Your task to perform on an android device: open a bookmark in the chrome app Image 0: 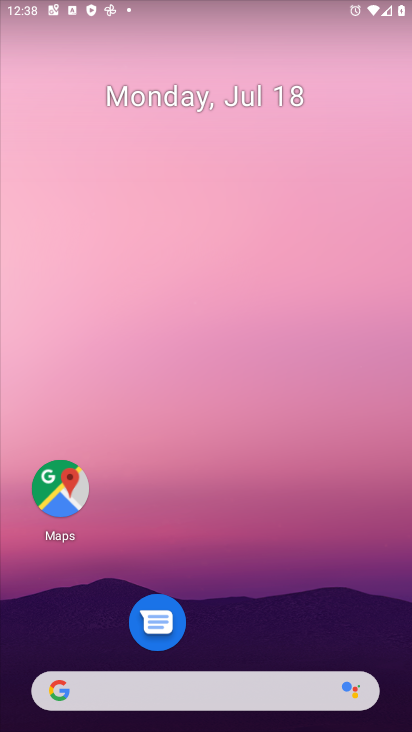
Step 0: drag from (102, 668) to (99, 87)
Your task to perform on an android device: open a bookmark in the chrome app Image 1: 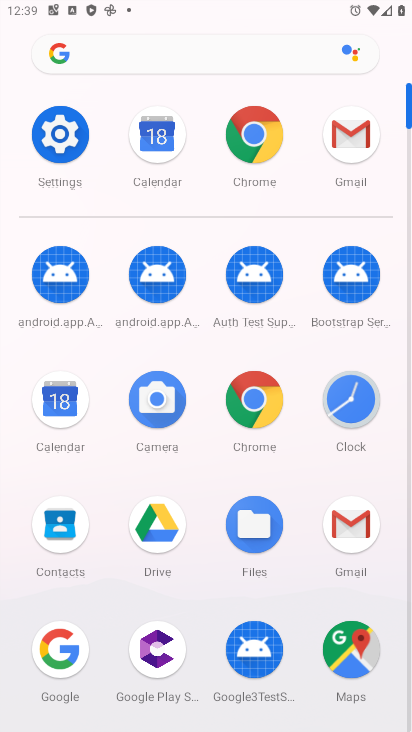
Step 1: click (245, 129)
Your task to perform on an android device: open a bookmark in the chrome app Image 2: 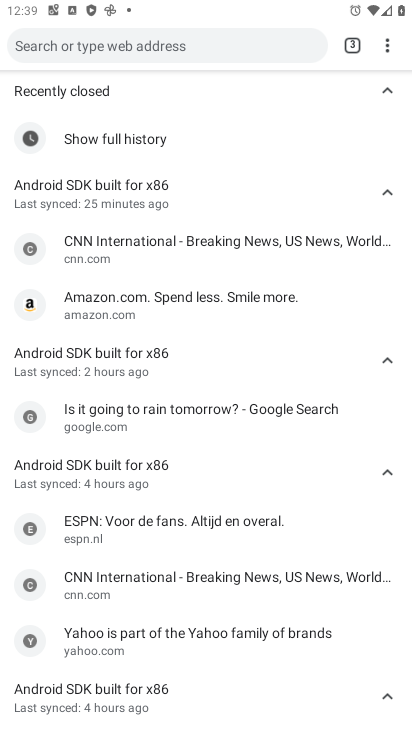
Step 2: click (382, 43)
Your task to perform on an android device: open a bookmark in the chrome app Image 3: 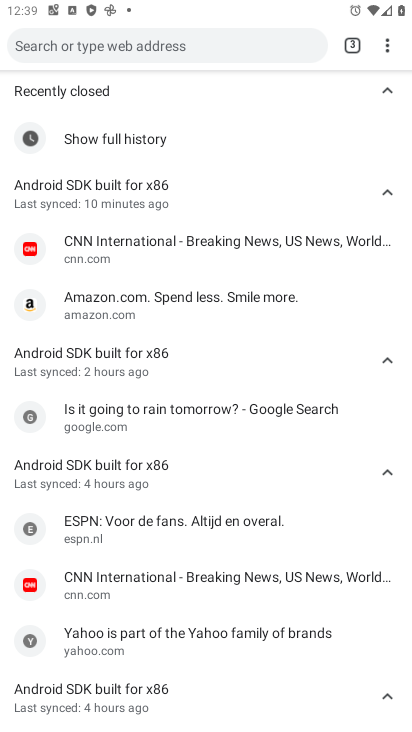
Step 3: click (394, 40)
Your task to perform on an android device: open a bookmark in the chrome app Image 4: 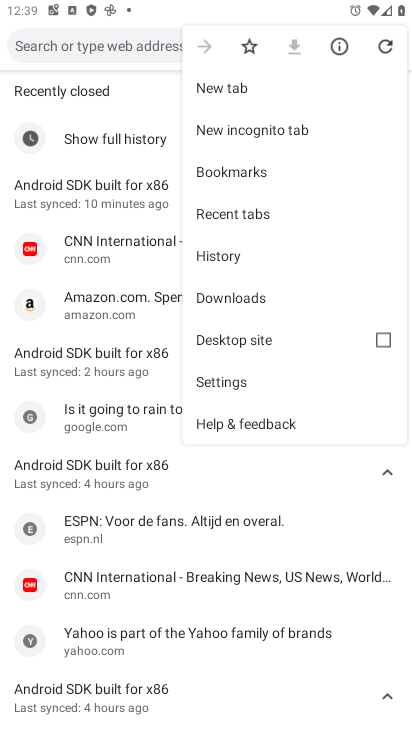
Step 4: click (267, 174)
Your task to perform on an android device: open a bookmark in the chrome app Image 5: 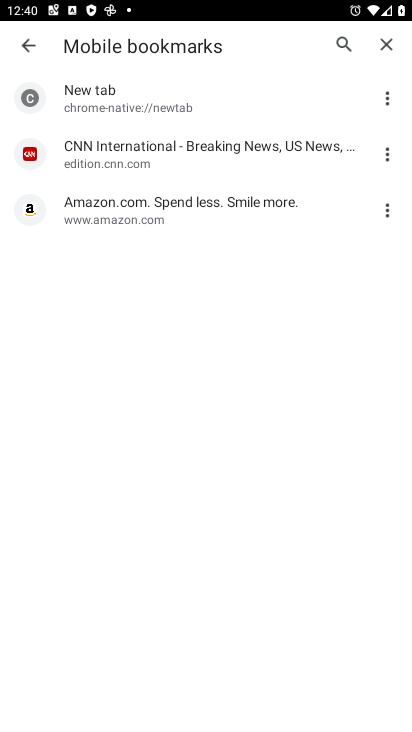
Step 5: click (231, 210)
Your task to perform on an android device: open a bookmark in the chrome app Image 6: 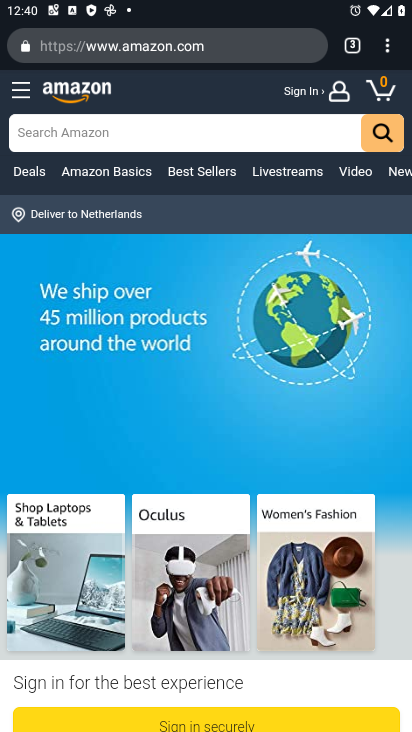
Step 6: task complete